Your task to perform on an android device: Turn off the flashlight Image 0: 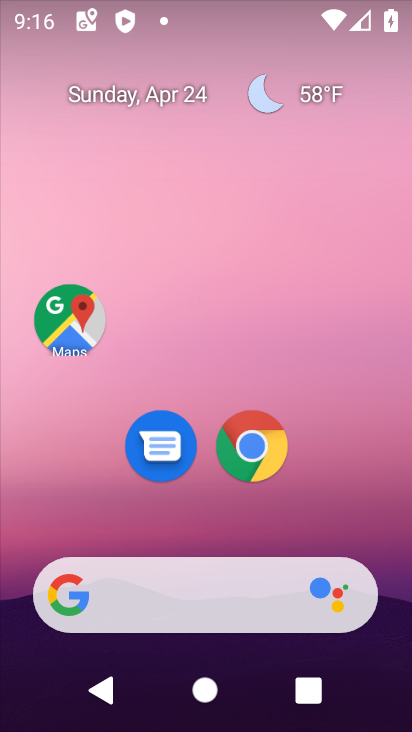
Step 0: drag from (251, 10) to (265, 417)
Your task to perform on an android device: Turn off the flashlight Image 1: 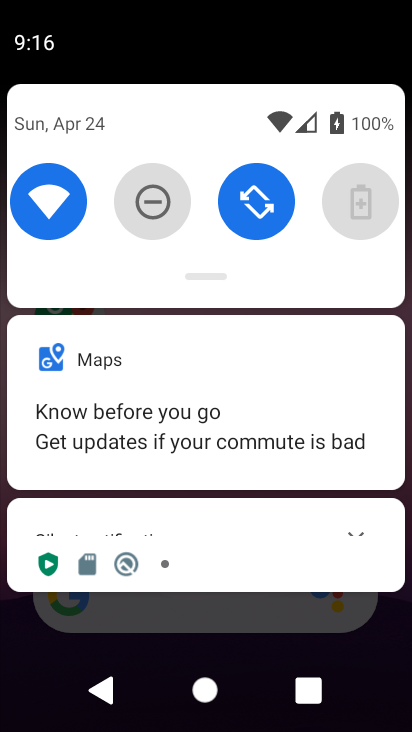
Step 1: drag from (224, 244) to (222, 534)
Your task to perform on an android device: Turn off the flashlight Image 2: 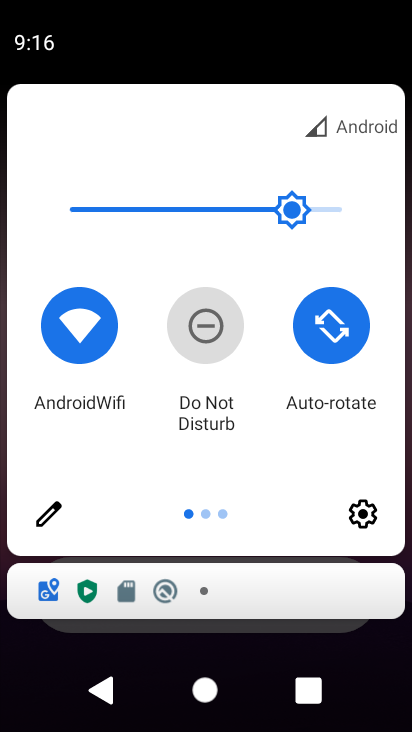
Step 2: drag from (336, 428) to (7, 458)
Your task to perform on an android device: Turn off the flashlight Image 3: 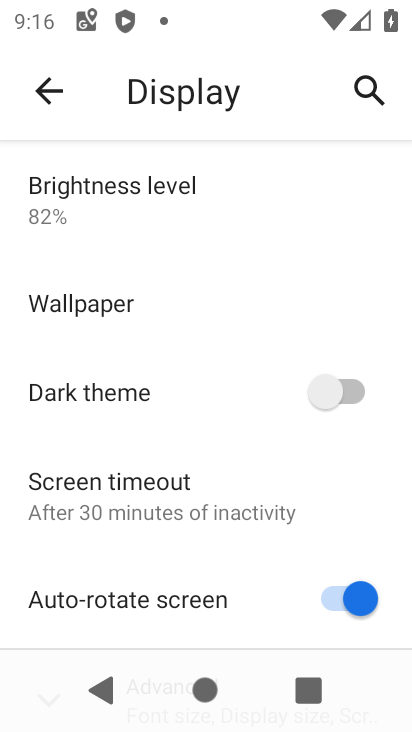
Step 3: click (45, 83)
Your task to perform on an android device: Turn off the flashlight Image 4: 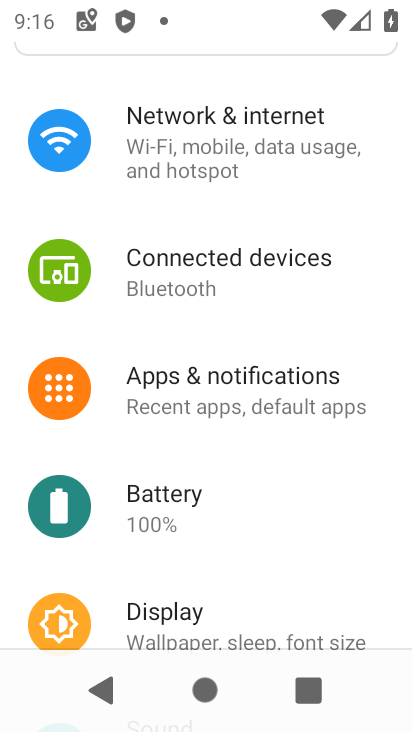
Step 4: task complete